Your task to perform on an android device: turn off airplane mode Image 0: 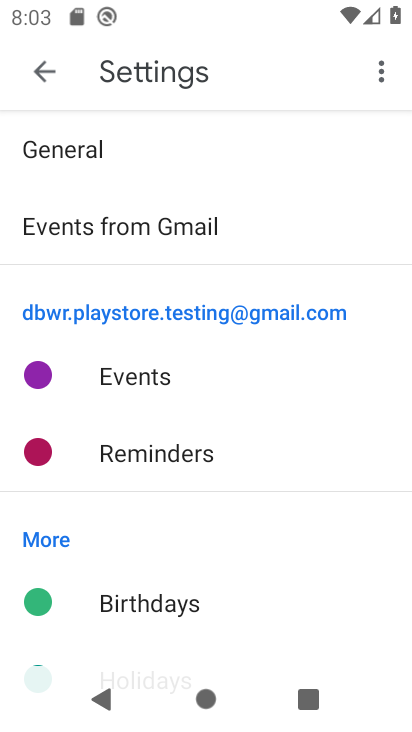
Step 0: press back button
Your task to perform on an android device: turn off airplane mode Image 1: 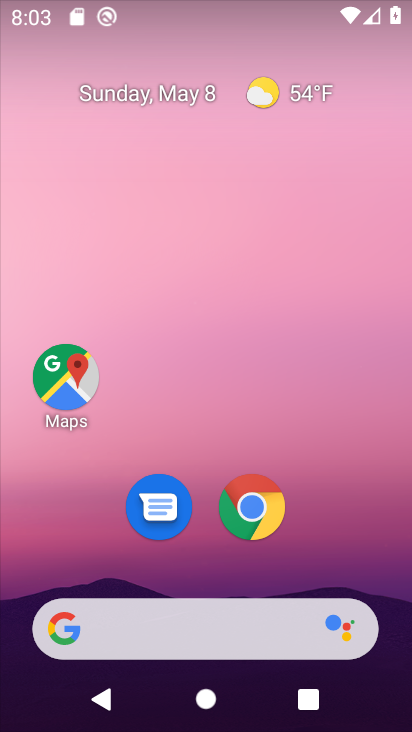
Step 1: drag from (204, 478) to (209, 195)
Your task to perform on an android device: turn off airplane mode Image 2: 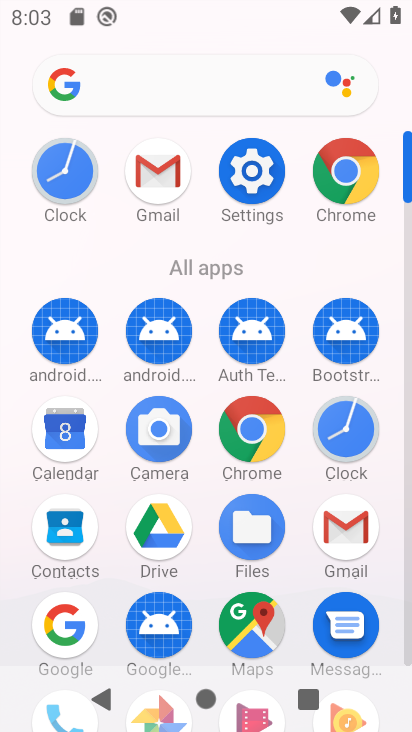
Step 2: click (262, 198)
Your task to perform on an android device: turn off airplane mode Image 3: 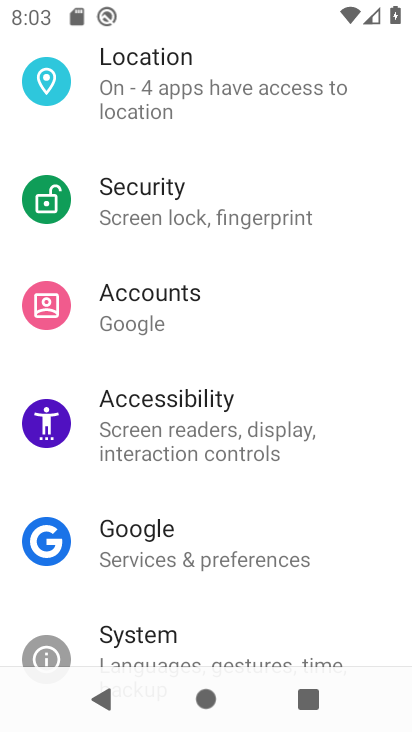
Step 3: drag from (254, 153) to (254, 640)
Your task to perform on an android device: turn off airplane mode Image 4: 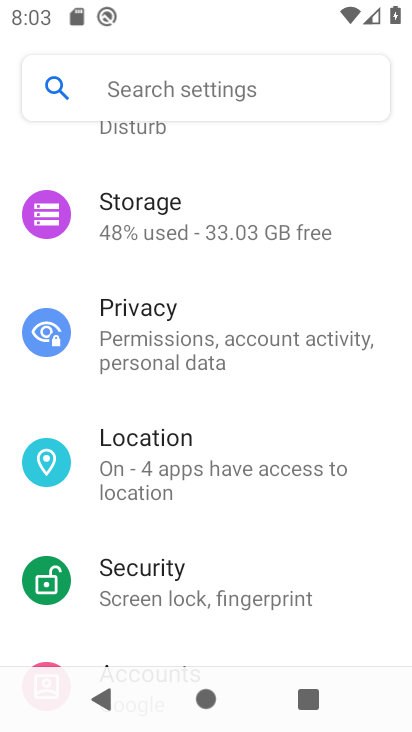
Step 4: drag from (228, 134) to (228, 646)
Your task to perform on an android device: turn off airplane mode Image 5: 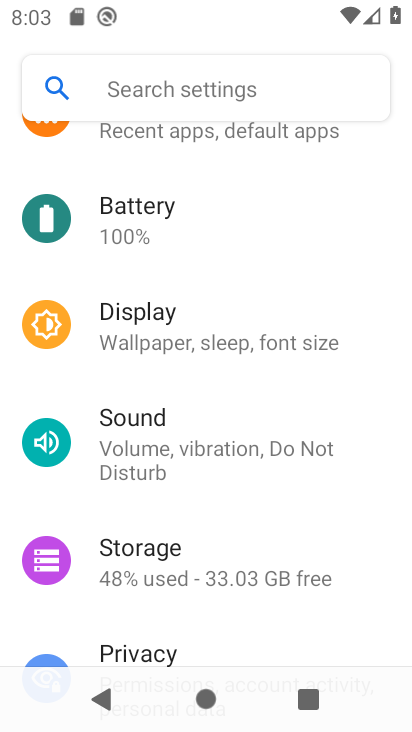
Step 5: drag from (228, 213) to (230, 618)
Your task to perform on an android device: turn off airplane mode Image 6: 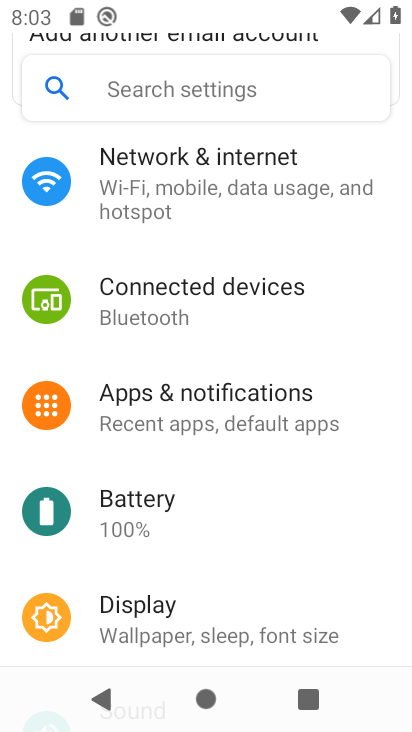
Step 6: click (213, 171)
Your task to perform on an android device: turn off airplane mode Image 7: 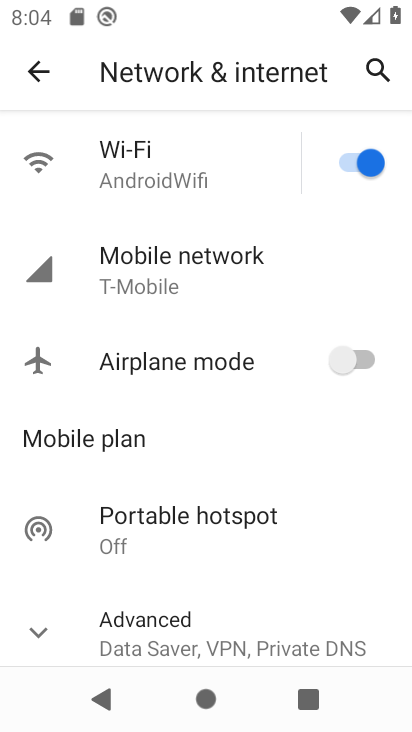
Step 7: task complete